Your task to perform on an android device: Open Maps and search for coffee Image 0: 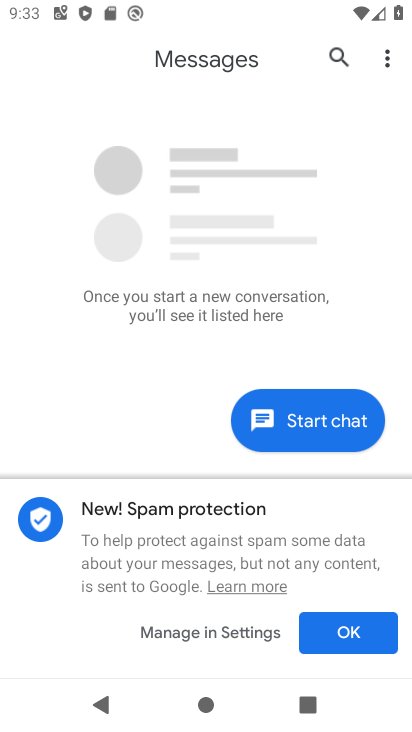
Step 0: press home button
Your task to perform on an android device: Open Maps and search for coffee Image 1: 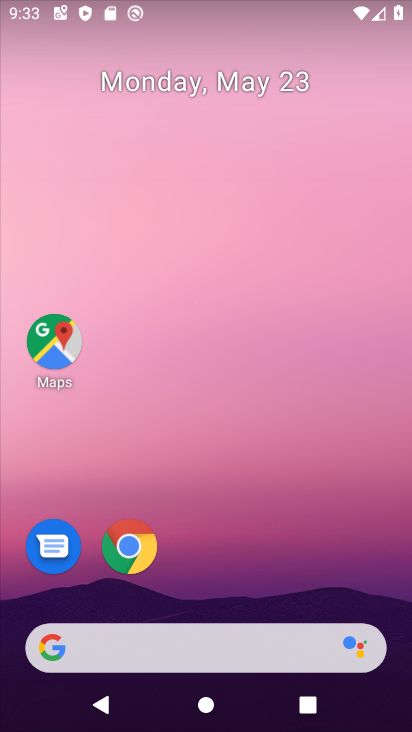
Step 1: click (53, 341)
Your task to perform on an android device: Open Maps and search for coffee Image 2: 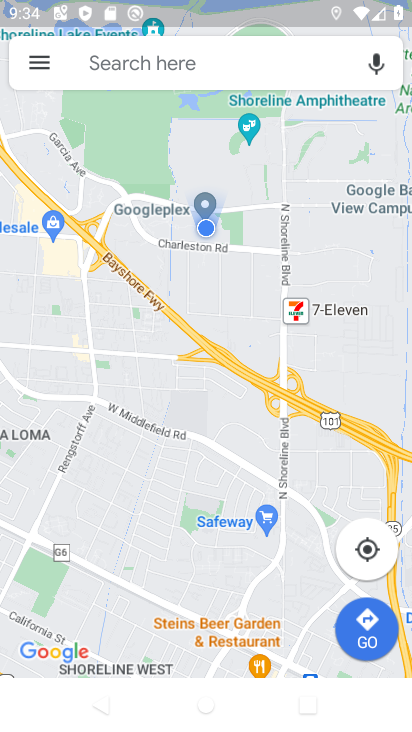
Step 2: click (135, 54)
Your task to perform on an android device: Open Maps and search for coffee Image 3: 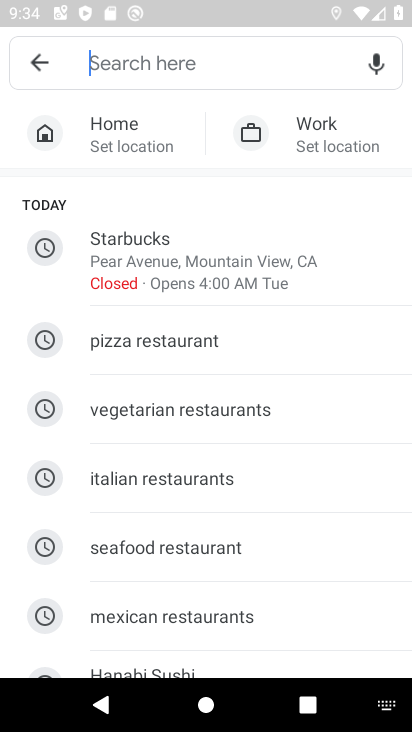
Step 3: type "coffee"
Your task to perform on an android device: Open Maps and search for coffee Image 4: 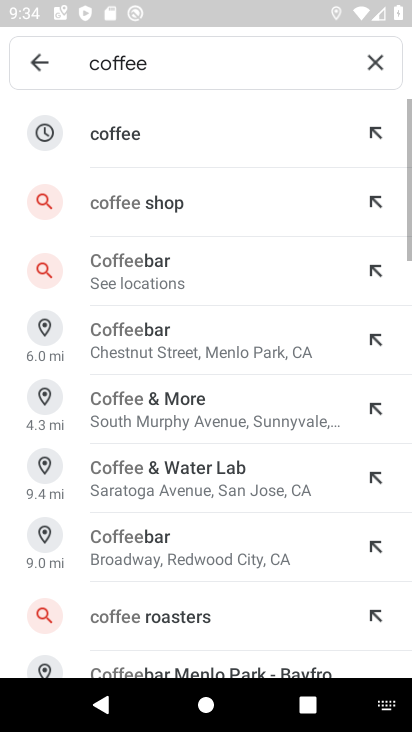
Step 4: click (108, 123)
Your task to perform on an android device: Open Maps and search for coffee Image 5: 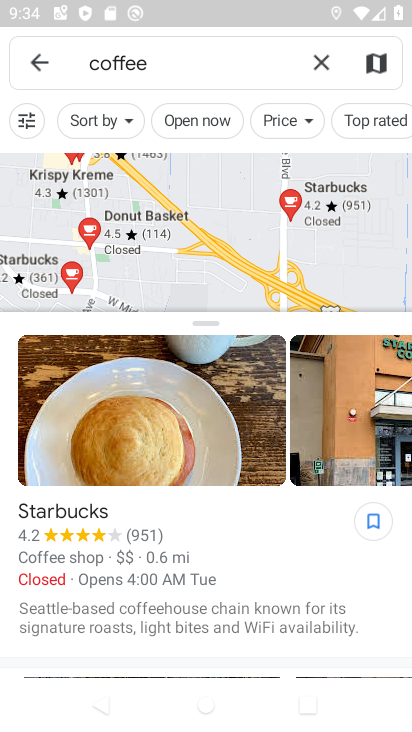
Step 5: task complete